Your task to perform on an android device: turn off translation in the chrome app Image 0: 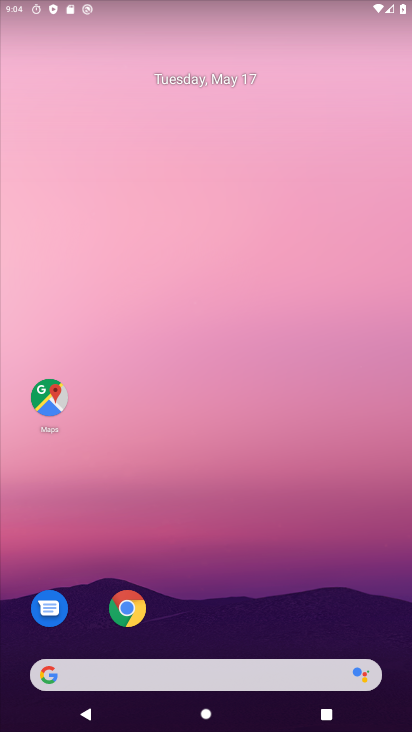
Step 0: drag from (359, 604) to (354, 66)
Your task to perform on an android device: turn off translation in the chrome app Image 1: 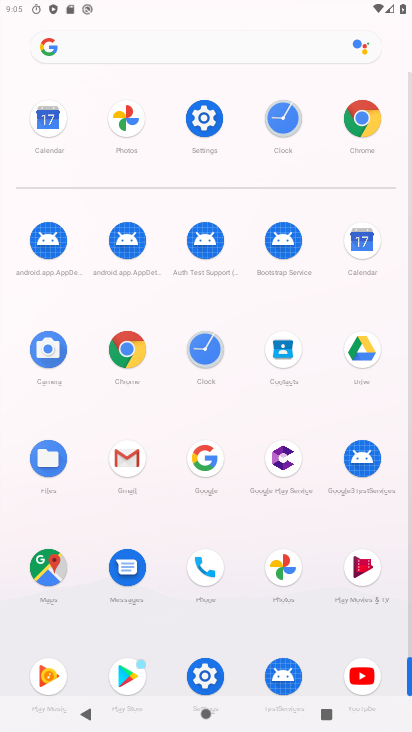
Step 1: click (201, 125)
Your task to perform on an android device: turn off translation in the chrome app Image 2: 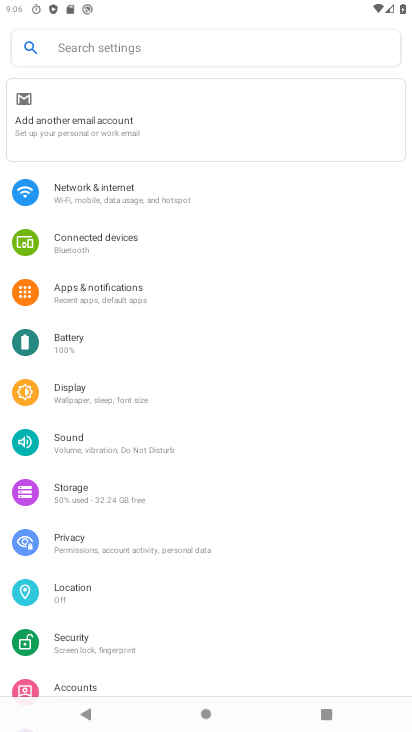
Step 2: click (97, 291)
Your task to perform on an android device: turn off translation in the chrome app Image 3: 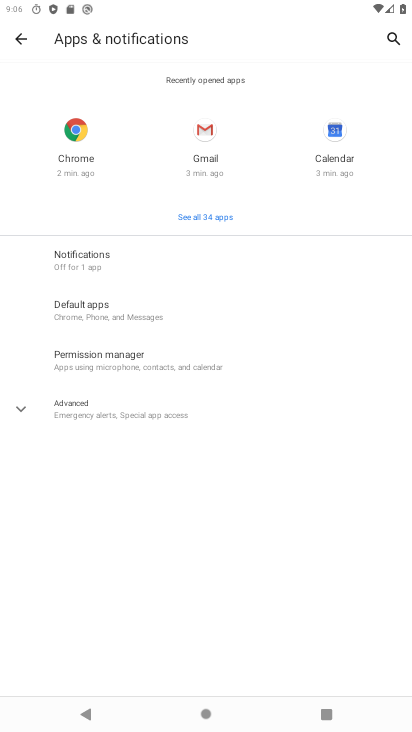
Step 3: click (94, 254)
Your task to perform on an android device: turn off translation in the chrome app Image 4: 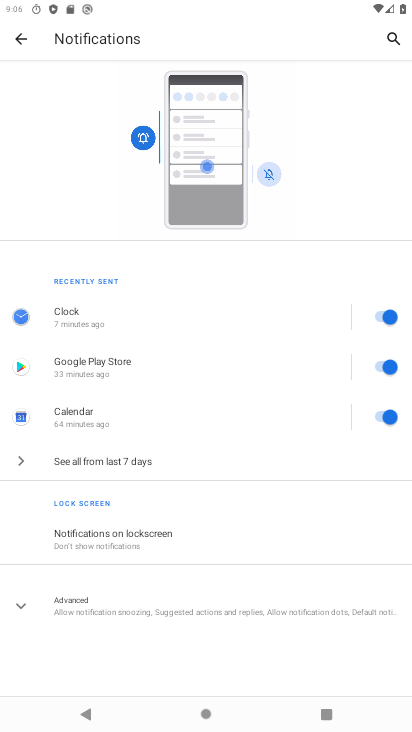
Step 4: click (113, 545)
Your task to perform on an android device: turn off translation in the chrome app Image 5: 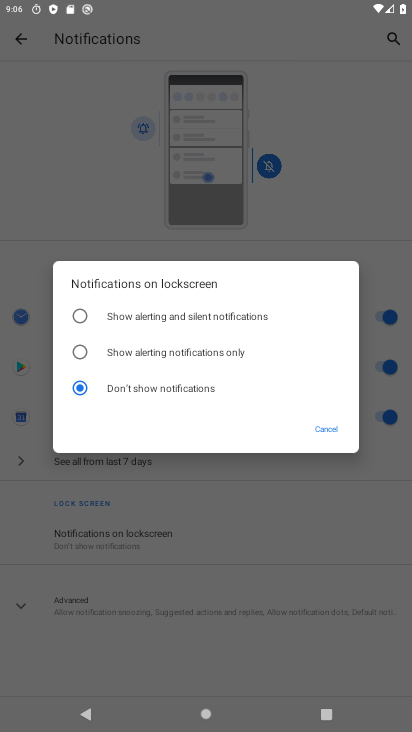
Step 5: task complete